Your task to perform on an android device: add a label to a message in the gmail app Image 0: 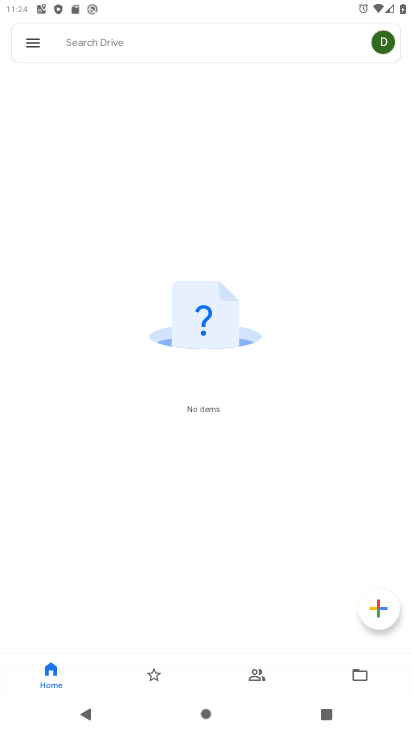
Step 0: press home button
Your task to perform on an android device: add a label to a message in the gmail app Image 1: 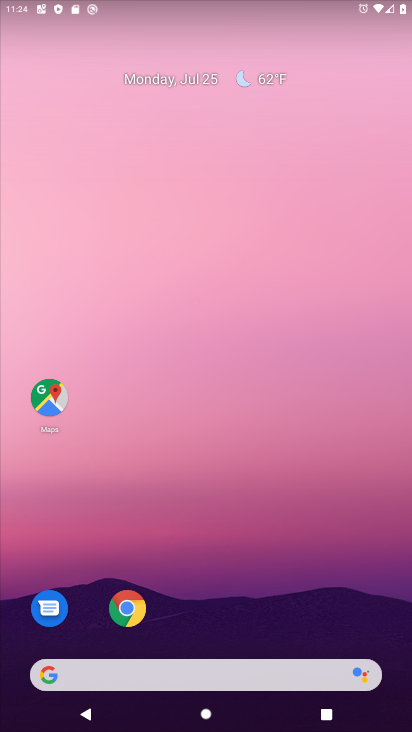
Step 1: drag from (239, 594) to (257, 0)
Your task to perform on an android device: add a label to a message in the gmail app Image 2: 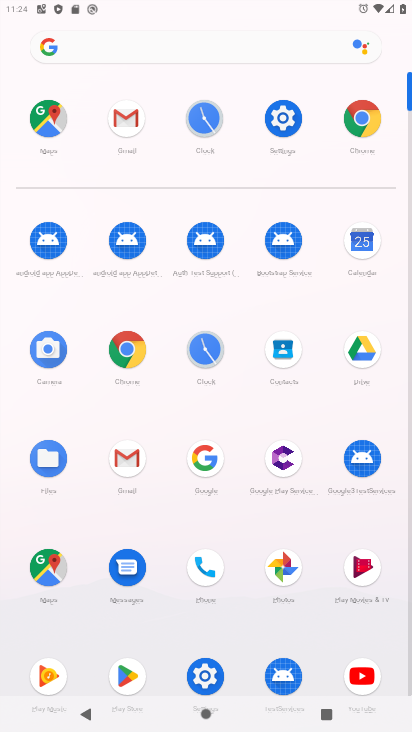
Step 2: click (123, 459)
Your task to perform on an android device: add a label to a message in the gmail app Image 3: 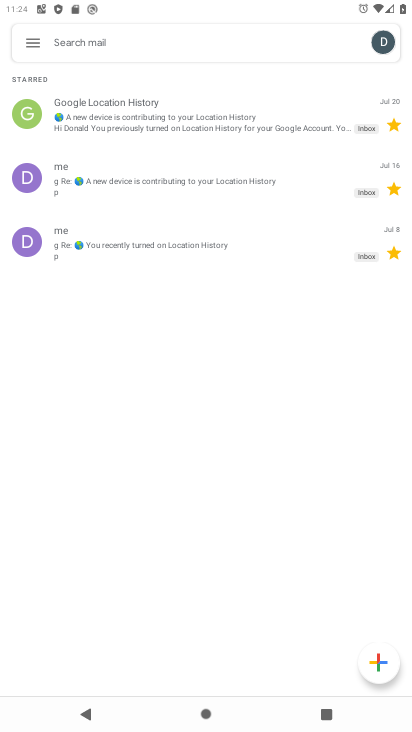
Step 3: click (28, 101)
Your task to perform on an android device: add a label to a message in the gmail app Image 4: 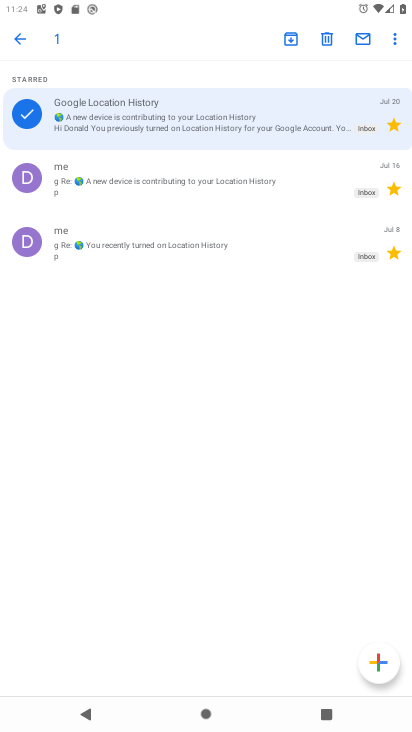
Step 4: click (395, 37)
Your task to perform on an android device: add a label to a message in the gmail app Image 5: 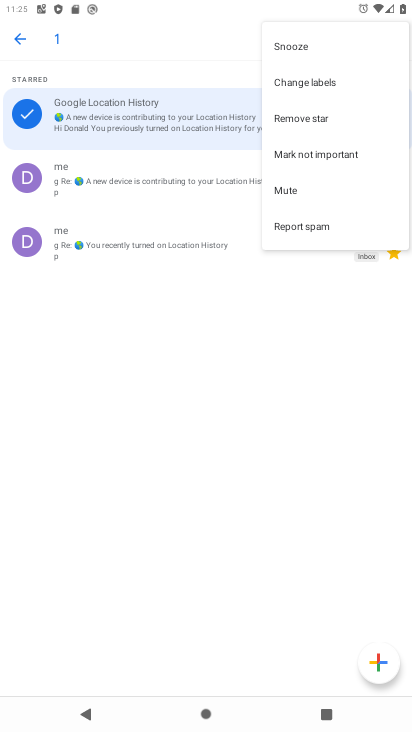
Step 5: click (326, 84)
Your task to perform on an android device: add a label to a message in the gmail app Image 6: 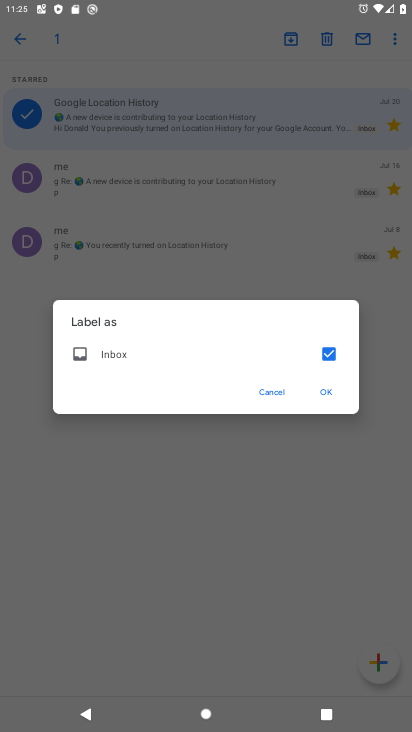
Step 6: click (321, 342)
Your task to perform on an android device: add a label to a message in the gmail app Image 7: 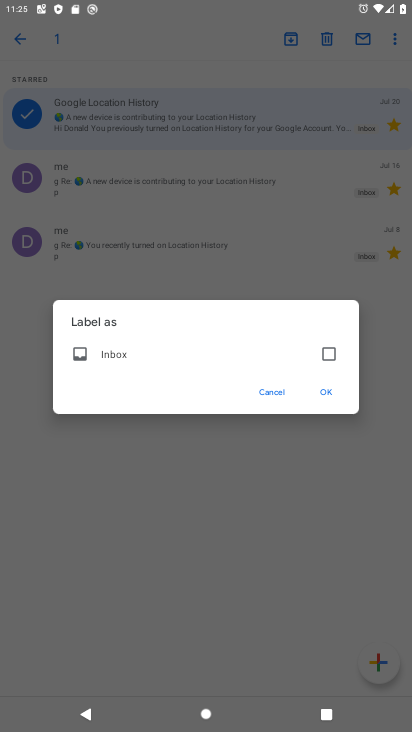
Step 7: click (325, 388)
Your task to perform on an android device: add a label to a message in the gmail app Image 8: 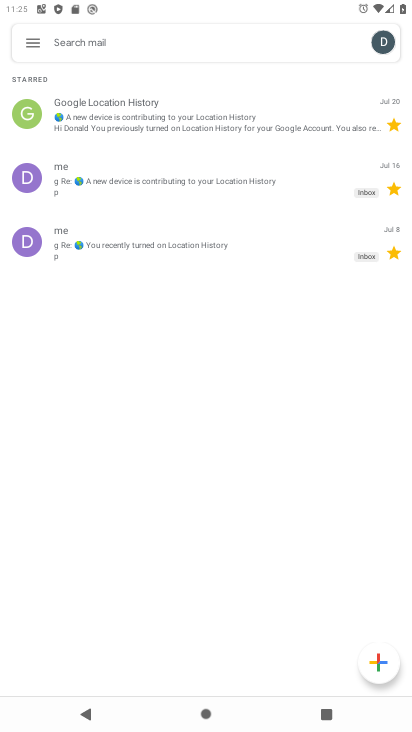
Step 8: task complete